Your task to perform on an android device: turn vacation reply on in the gmail app Image 0: 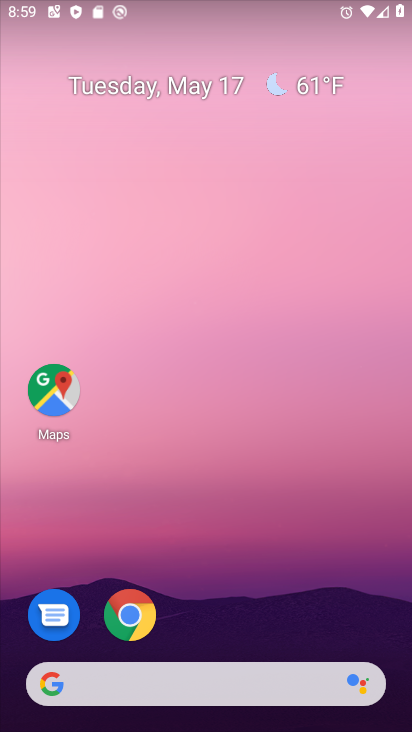
Step 0: drag from (274, 614) to (223, 130)
Your task to perform on an android device: turn vacation reply on in the gmail app Image 1: 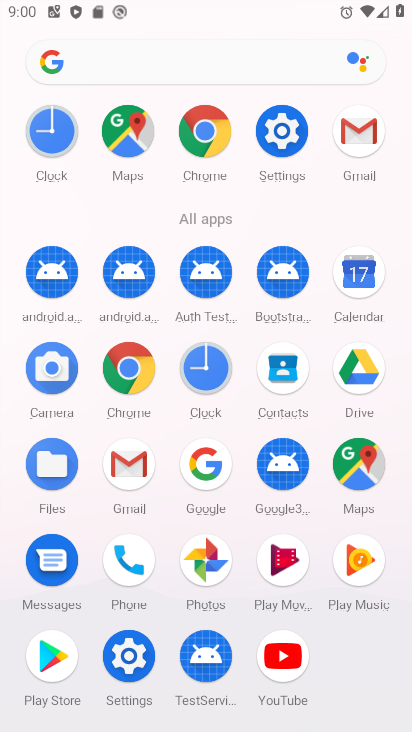
Step 1: click (121, 453)
Your task to perform on an android device: turn vacation reply on in the gmail app Image 2: 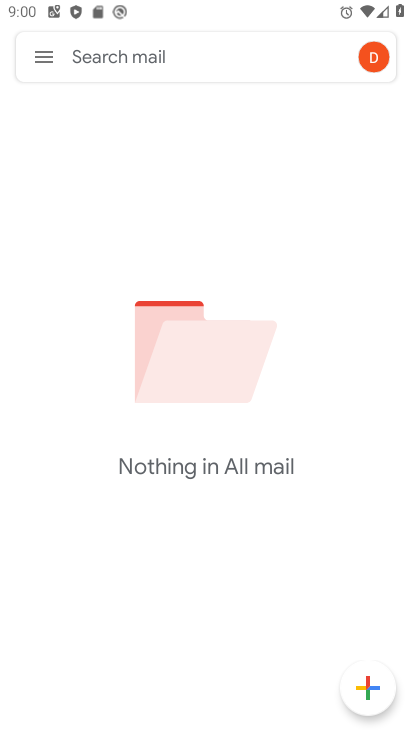
Step 2: click (54, 59)
Your task to perform on an android device: turn vacation reply on in the gmail app Image 3: 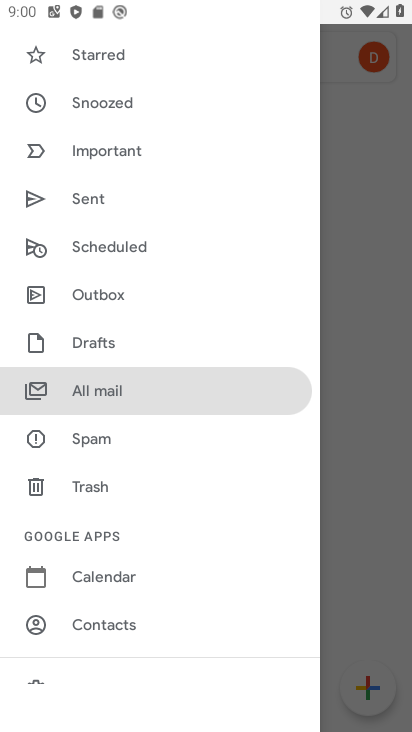
Step 3: drag from (121, 617) to (137, 390)
Your task to perform on an android device: turn vacation reply on in the gmail app Image 4: 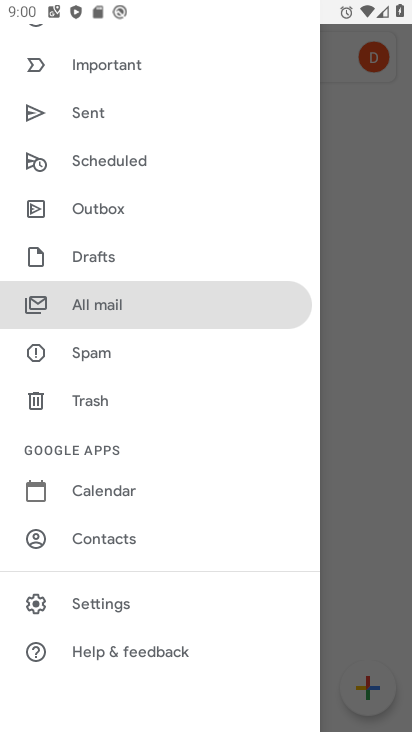
Step 4: click (137, 601)
Your task to perform on an android device: turn vacation reply on in the gmail app Image 5: 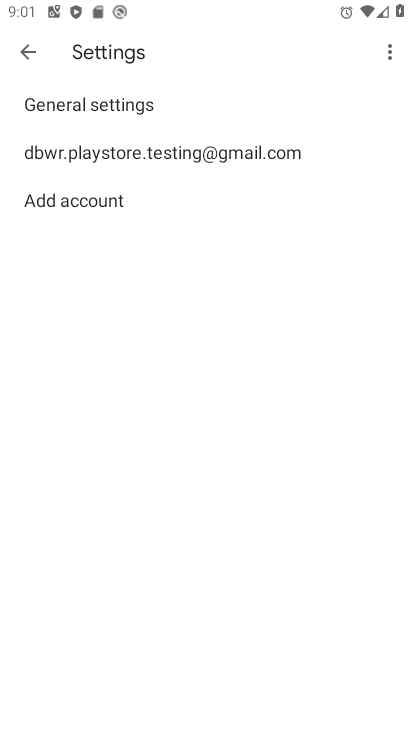
Step 5: click (198, 152)
Your task to perform on an android device: turn vacation reply on in the gmail app Image 6: 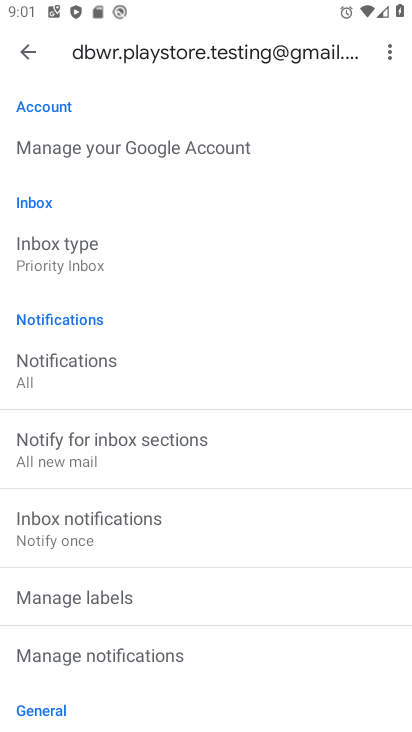
Step 6: drag from (156, 611) to (192, 221)
Your task to perform on an android device: turn vacation reply on in the gmail app Image 7: 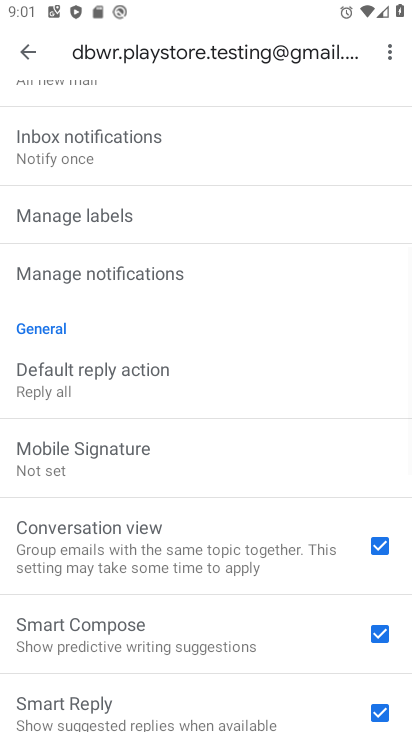
Step 7: drag from (194, 666) to (229, 378)
Your task to perform on an android device: turn vacation reply on in the gmail app Image 8: 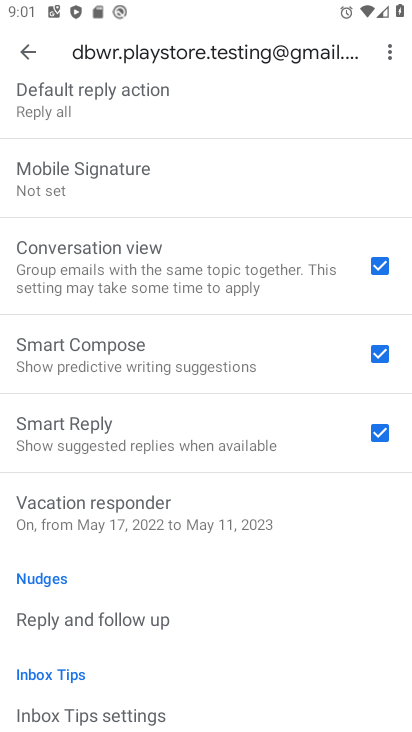
Step 8: click (157, 508)
Your task to perform on an android device: turn vacation reply on in the gmail app Image 9: 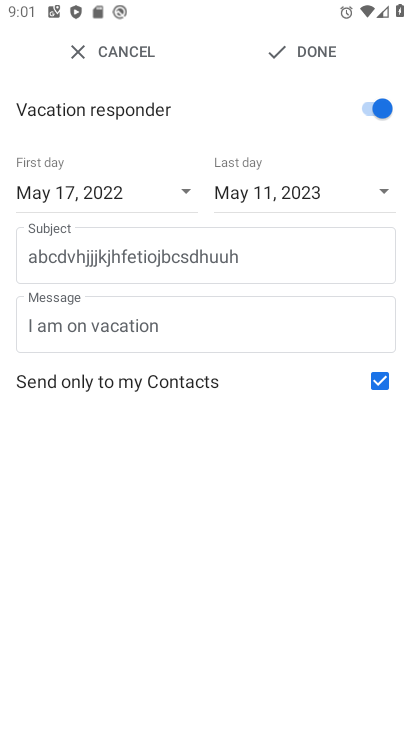
Step 9: click (303, 53)
Your task to perform on an android device: turn vacation reply on in the gmail app Image 10: 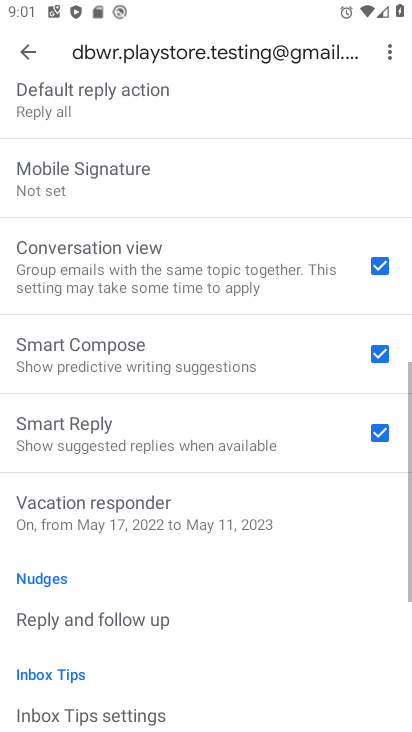
Step 10: task complete